Your task to perform on an android device: Go to Google Image 0: 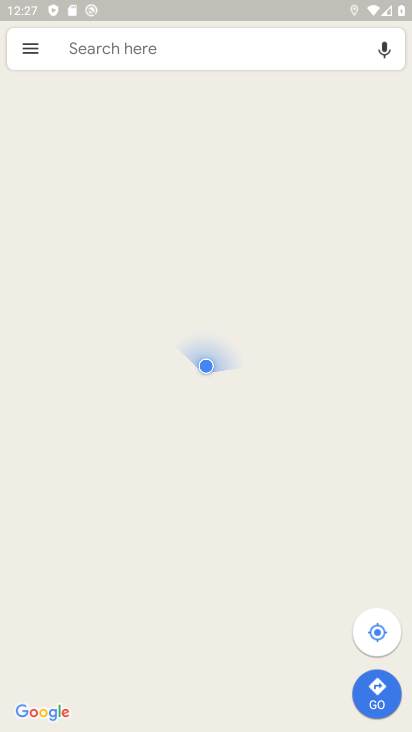
Step 0: press home button
Your task to perform on an android device: Go to Google Image 1: 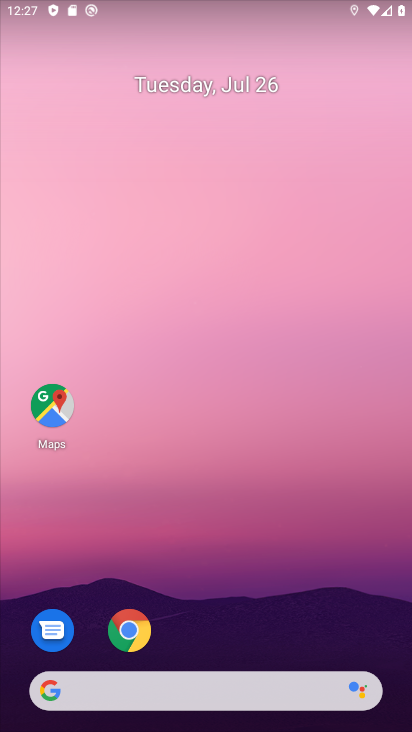
Step 1: click (129, 632)
Your task to perform on an android device: Go to Google Image 2: 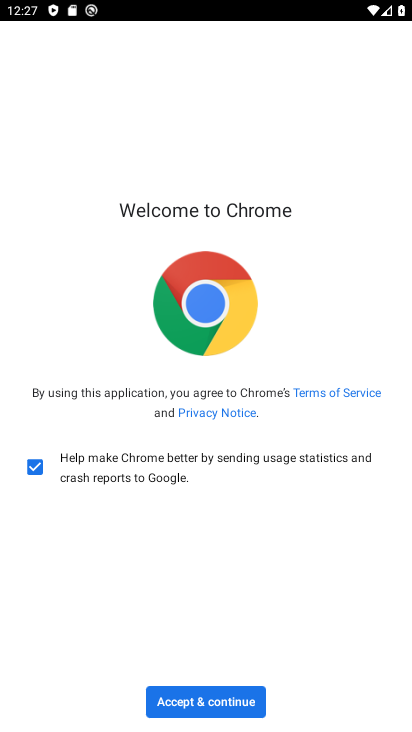
Step 2: click (203, 700)
Your task to perform on an android device: Go to Google Image 3: 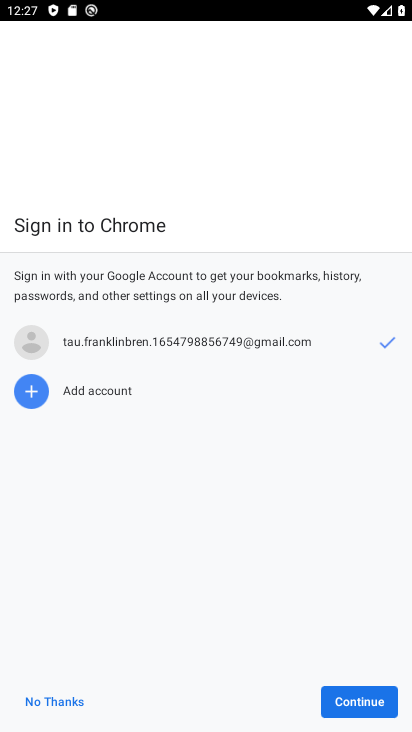
Step 3: click (352, 697)
Your task to perform on an android device: Go to Google Image 4: 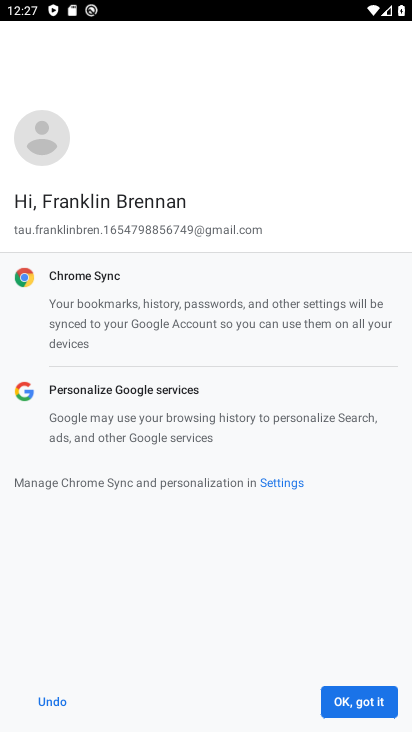
Step 4: click (361, 708)
Your task to perform on an android device: Go to Google Image 5: 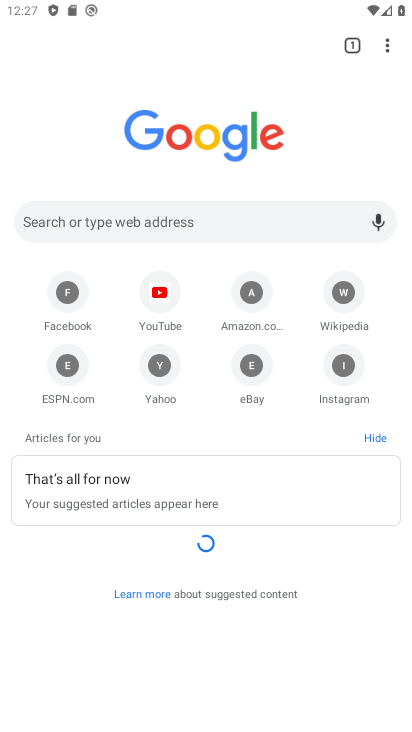
Step 5: task complete